Your task to perform on an android device: toggle show notifications on the lock screen Image 0: 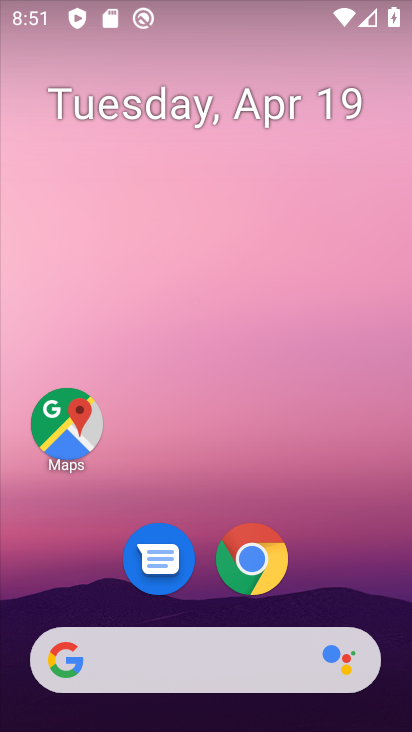
Step 0: drag from (332, 600) to (219, 354)
Your task to perform on an android device: toggle show notifications on the lock screen Image 1: 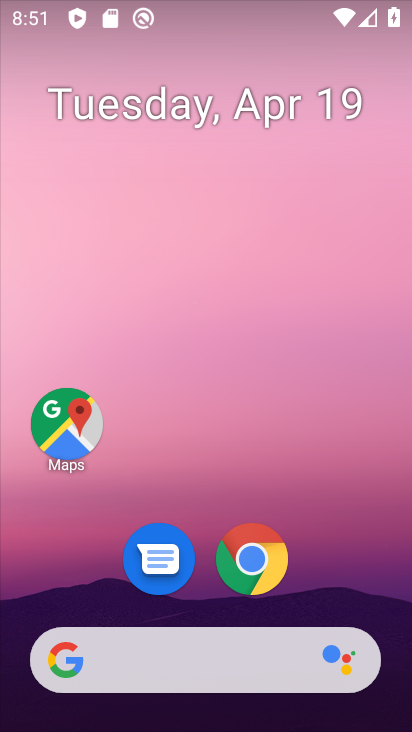
Step 1: drag from (367, 531) to (271, 291)
Your task to perform on an android device: toggle show notifications on the lock screen Image 2: 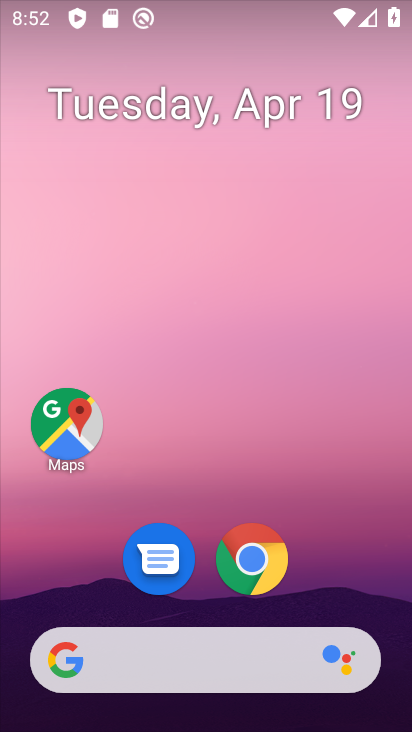
Step 2: drag from (382, 596) to (87, 0)
Your task to perform on an android device: toggle show notifications on the lock screen Image 3: 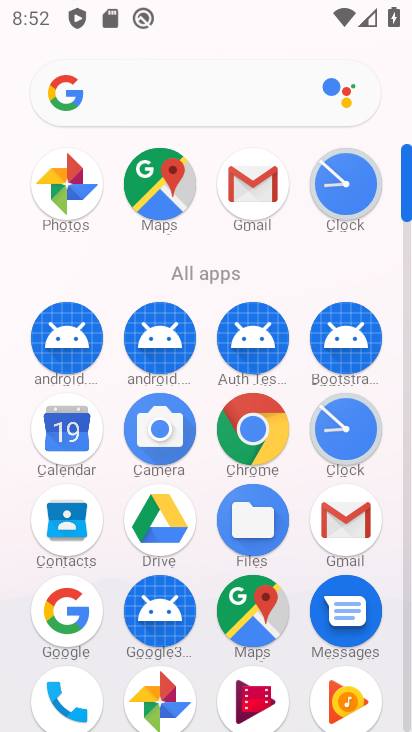
Step 3: click (398, 159)
Your task to perform on an android device: toggle show notifications on the lock screen Image 4: 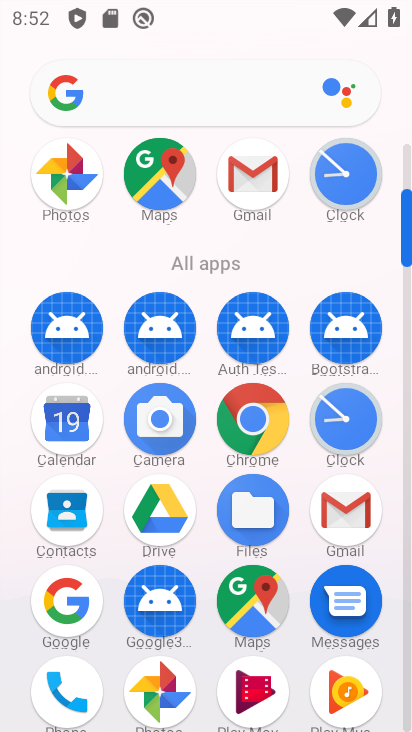
Step 4: drag from (389, 174) to (372, 123)
Your task to perform on an android device: toggle show notifications on the lock screen Image 5: 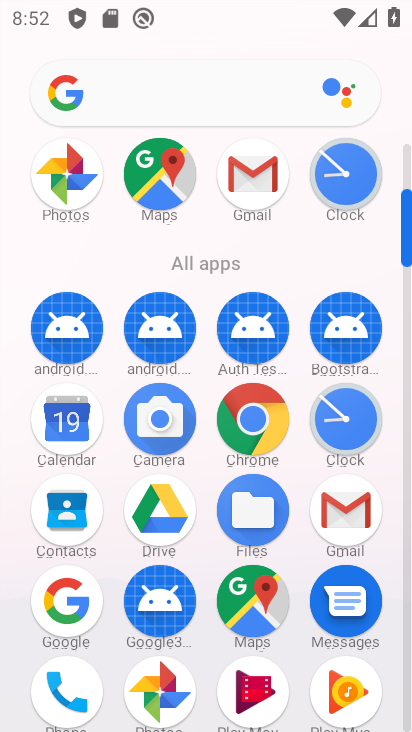
Step 5: drag from (383, 166) to (366, 99)
Your task to perform on an android device: toggle show notifications on the lock screen Image 6: 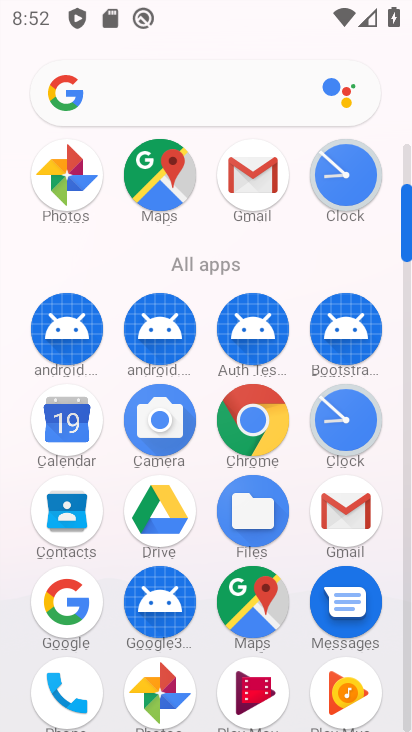
Step 6: drag from (398, 232) to (376, 104)
Your task to perform on an android device: toggle show notifications on the lock screen Image 7: 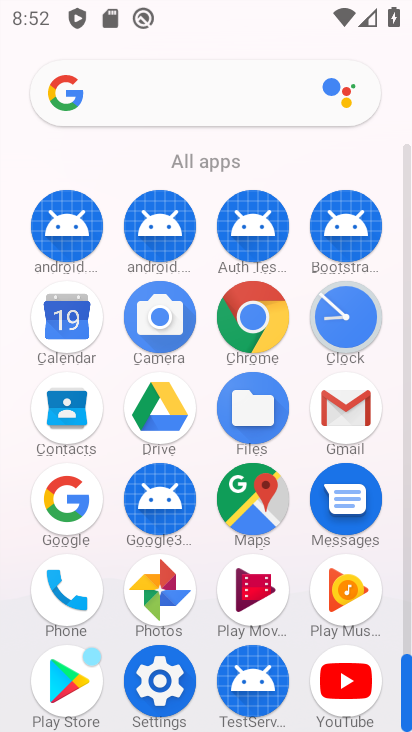
Step 7: click (154, 694)
Your task to perform on an android device: toggle show notifications on the lock screen Image 8: 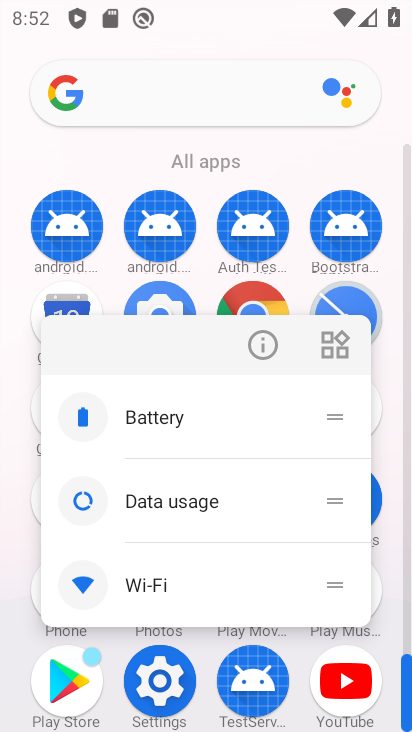
Step 8: click (166, 677)
Your task to perform on an android device: toggle show notifications on the lock screen Image 9: 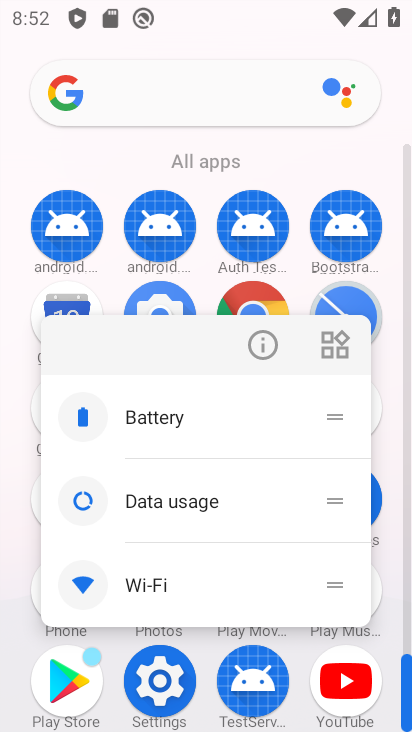
Step 9: click (162, 674)
Your task to perform on an android device: toggle show notifications on the lock screen Image 10: 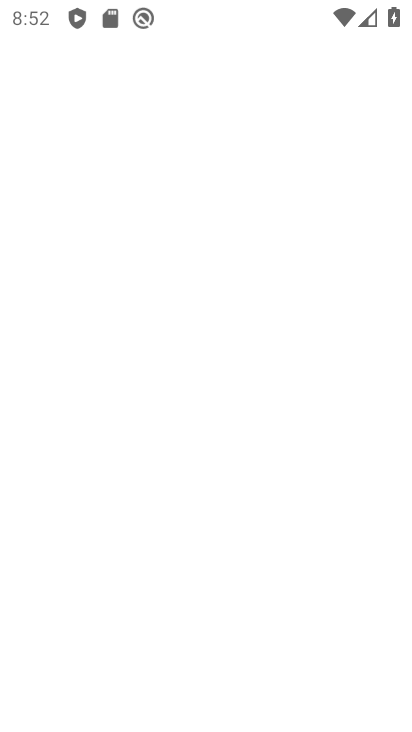
Step 10: click (159, 667)
Your task to perform on an android device: toggle show notifications on the lock screen Image 11: 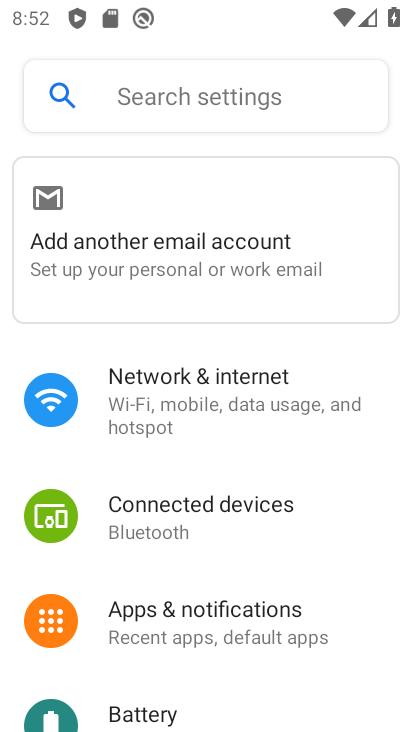
Step 11: click (143, 616)
Your task to perform on an android device: toggle show notifications on the lock screen Image 12: 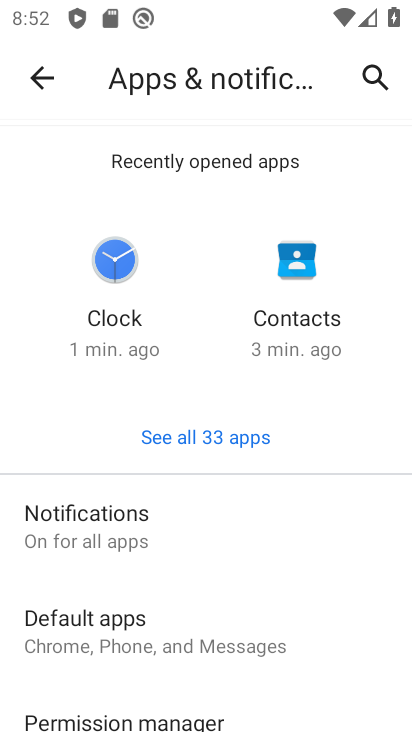
Step 12: click (105, 519)
Your task to perform on an android device: toggle show notifications on the lock screen Image 13: 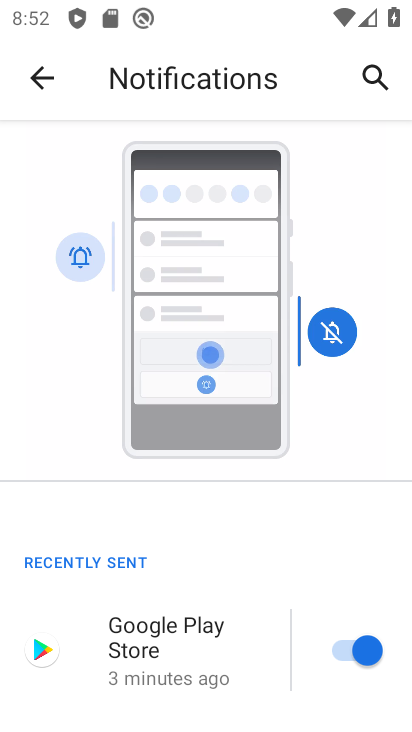
Step 13: drag from (285, 685) to (96, 172)
Your task to perform on an android device: toggle show notifications on the lock screen Image 14: 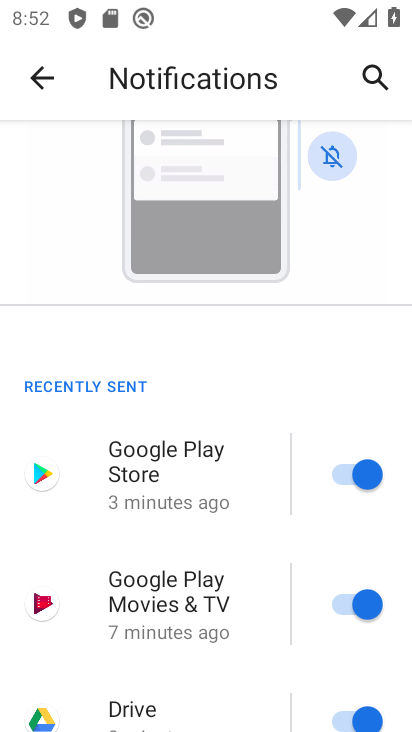
Step 14: drag from (302, 683) to (99, 88)
Your task to perform on an android device: toggle show notifications on the lock screen Image 15: 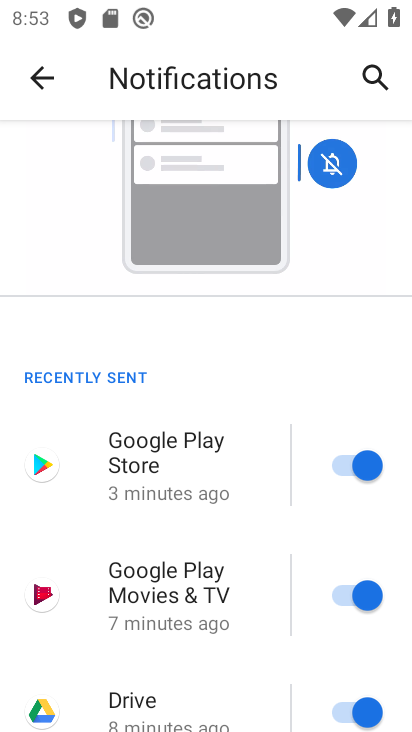
Step 15: drag from (155, 390) to (66, 182)
Your task to perform on an android device: toggle show notifications on the lock screen Image 16: 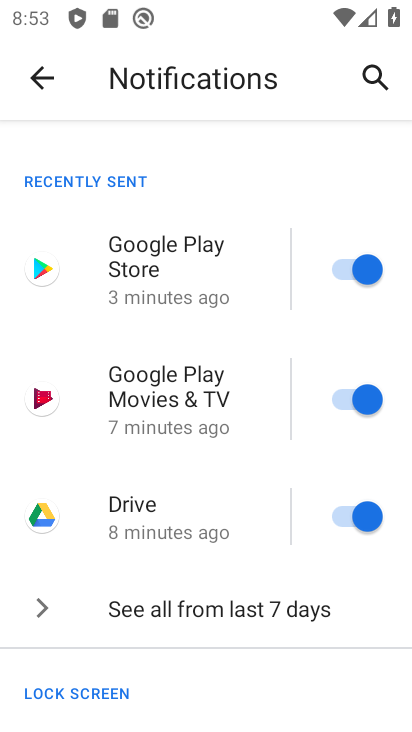
Step 16: drag from (263, 683) to (34, 205)
Your task to perform on an android device: toggle show notifications on the lock screen Image 17: 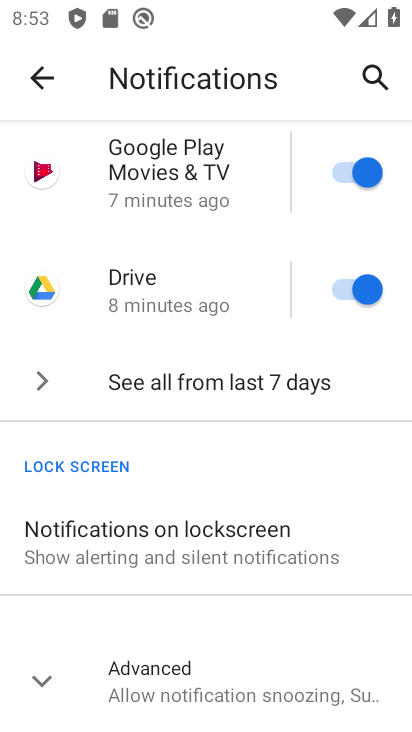
Step 17: click (67, 536)
Your task to perform on an android device: toggle show notifications on the lock screen Image 18: 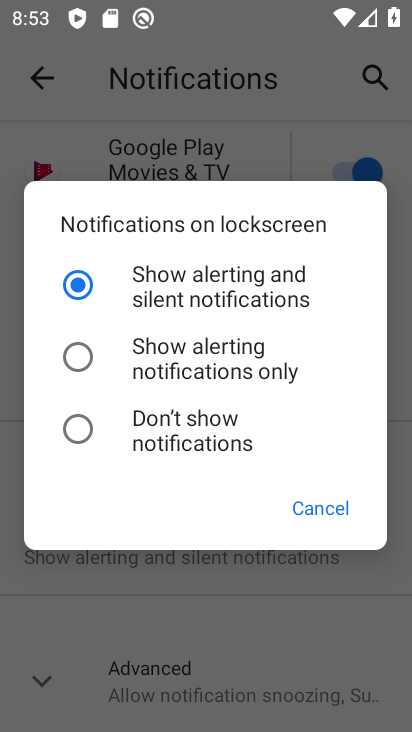
Step 18: click (64, 361)
Your task to perform on an android device: toggle show notifications on the lock screen Image 19: 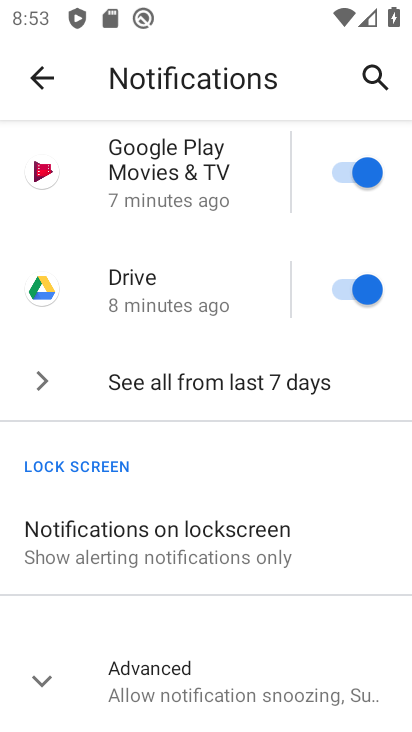
Step 19: task complete